Your task to perform on an android device: Go to calendar. Show me events next week Image 0: 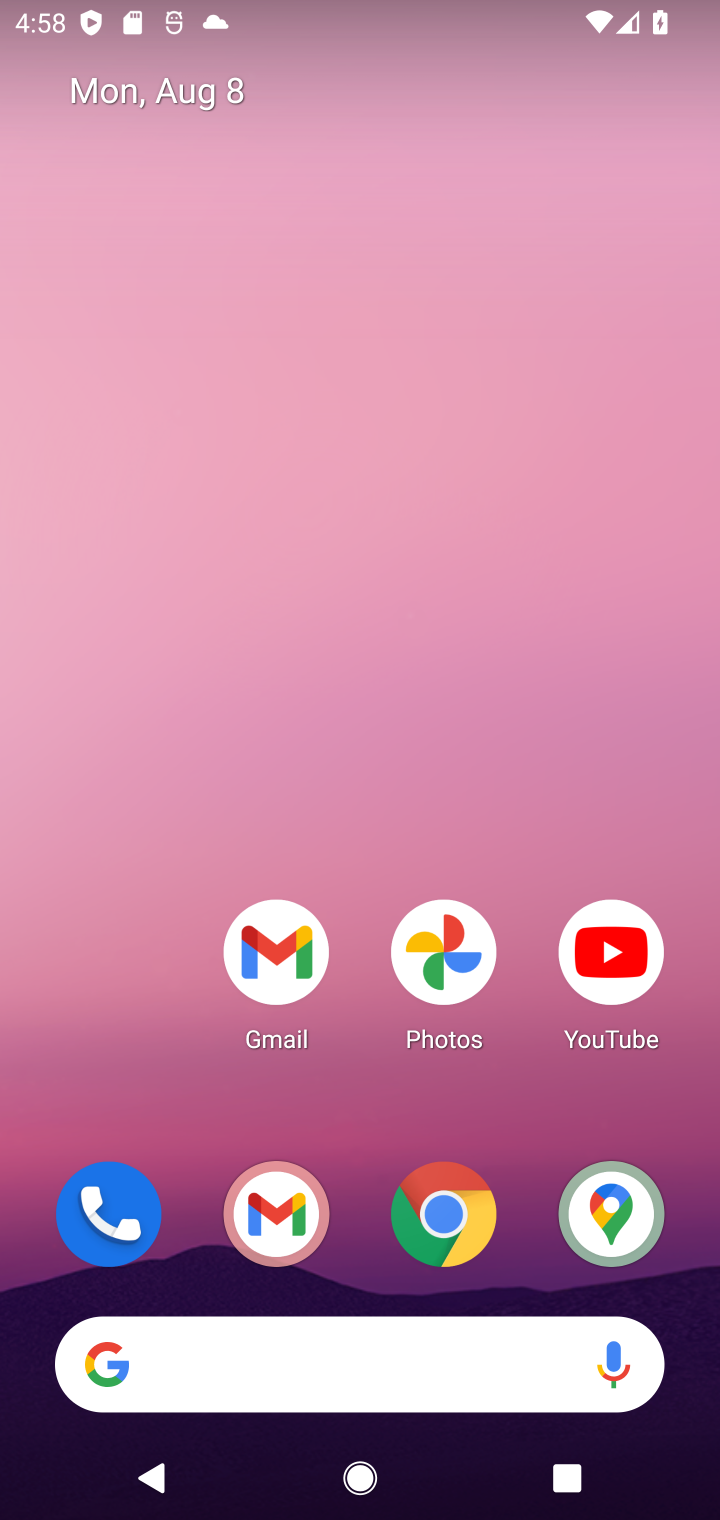
Step 0: drag from (317, 964) to (301, 114)
Your task to perform on an android device: Go to calendar. Show me events next week Image 1: 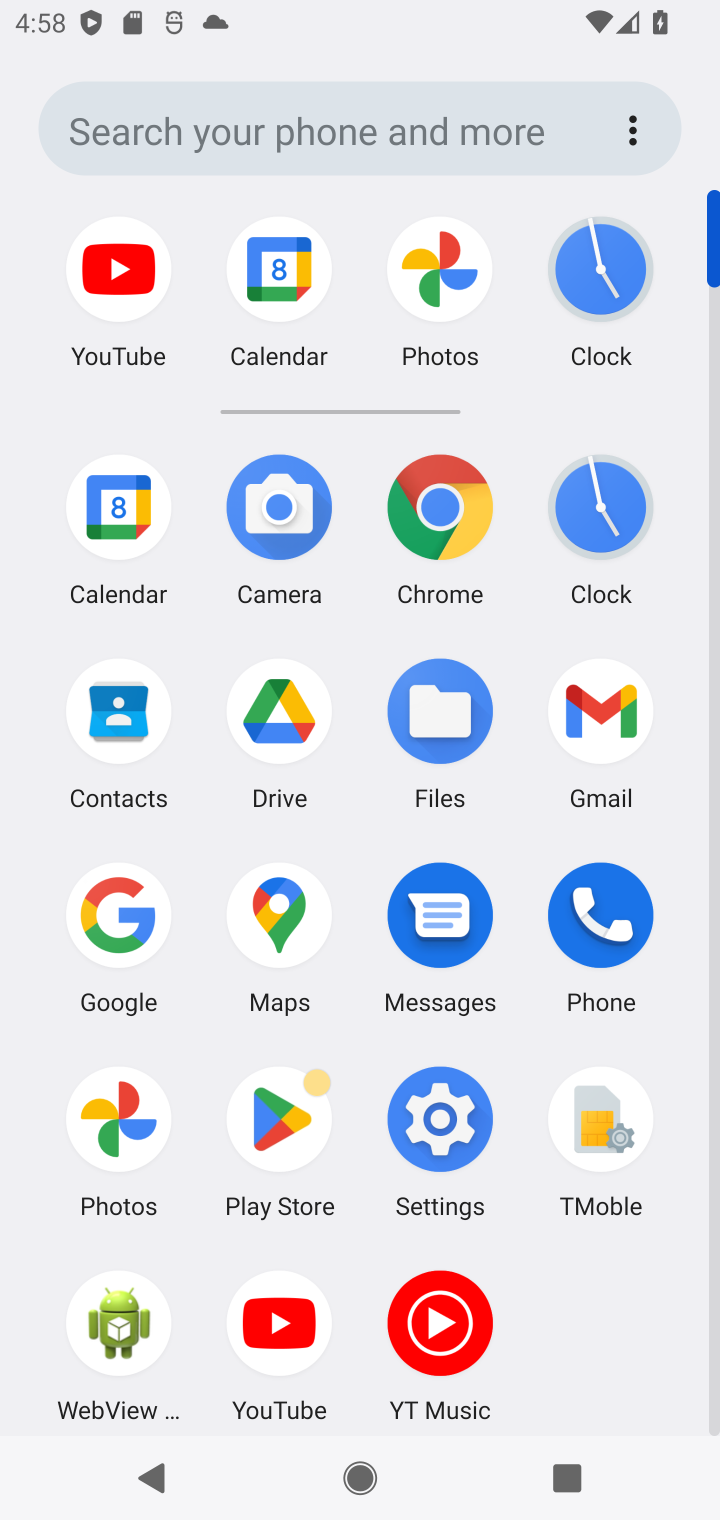
Step 1: click (119, 516)
Your task to perform on an android device: Go to calendar. Show me events next week Image 2: 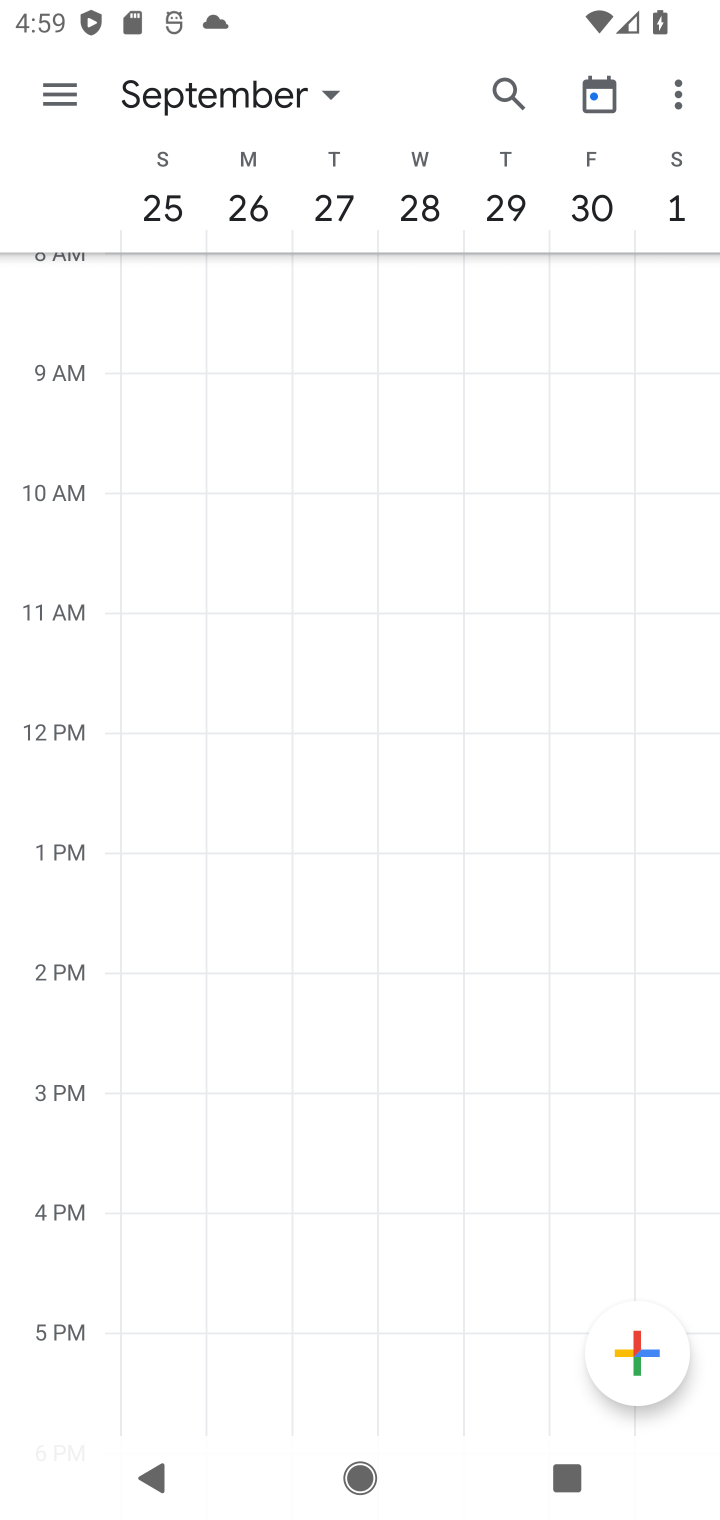
Step 2: click (336, 101)
Your task to perform on an android device: Go to calendar. Show me events next week Image 3: 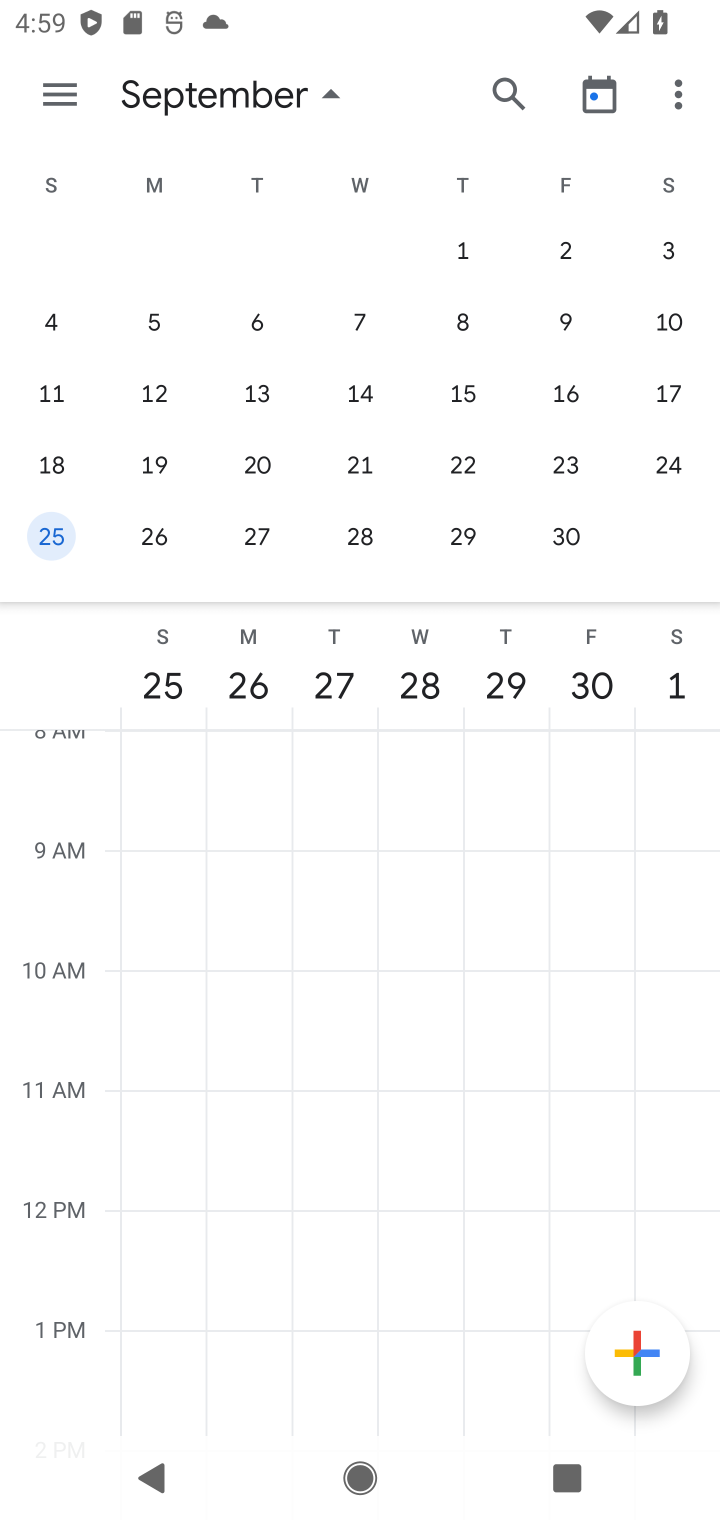
Step 3: drag from (54, 378) to (539, 394)
Your task to perform on an android device: Go to calendar. Show me events next week Image 4: 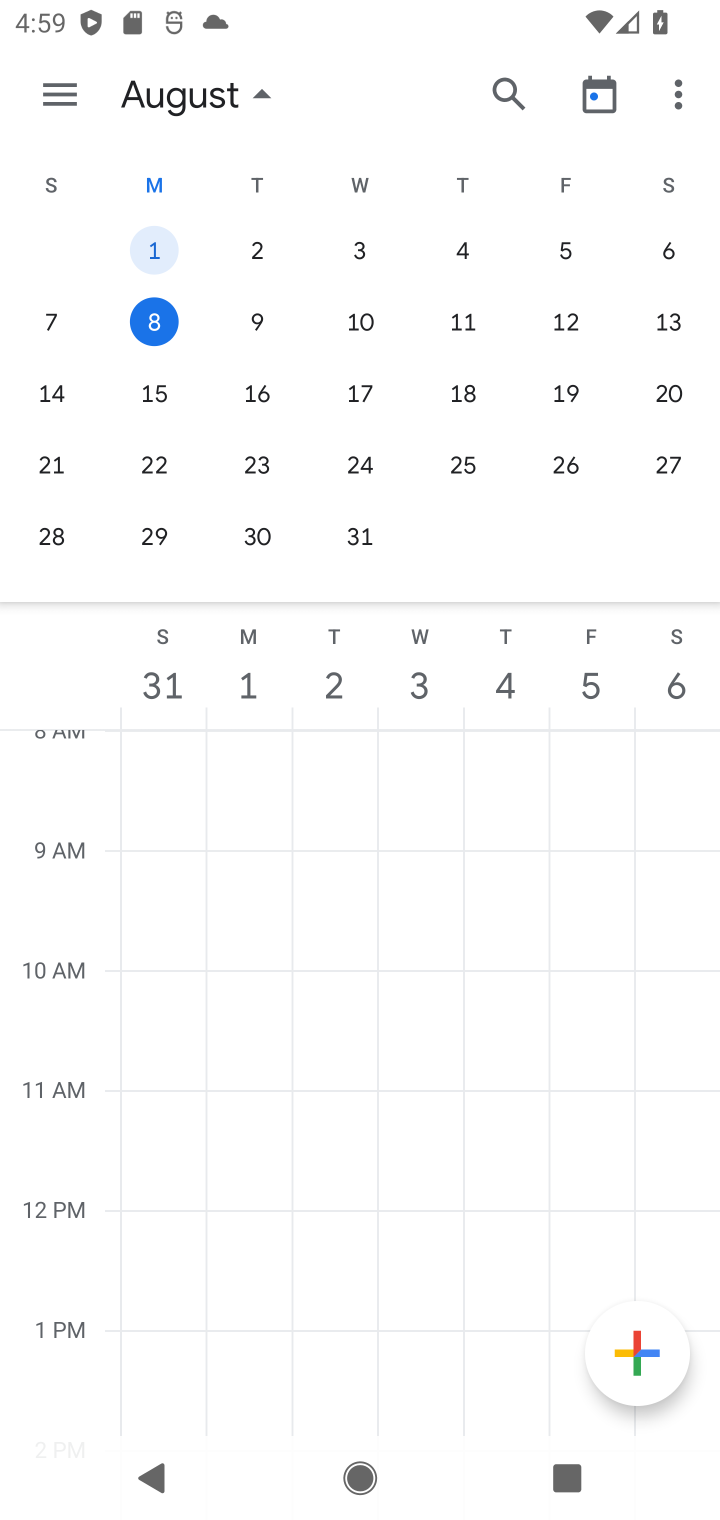
Step 4: click (153, 389)
Your task to perform on an android device: Go to calendar. Show me events next week Image 5: 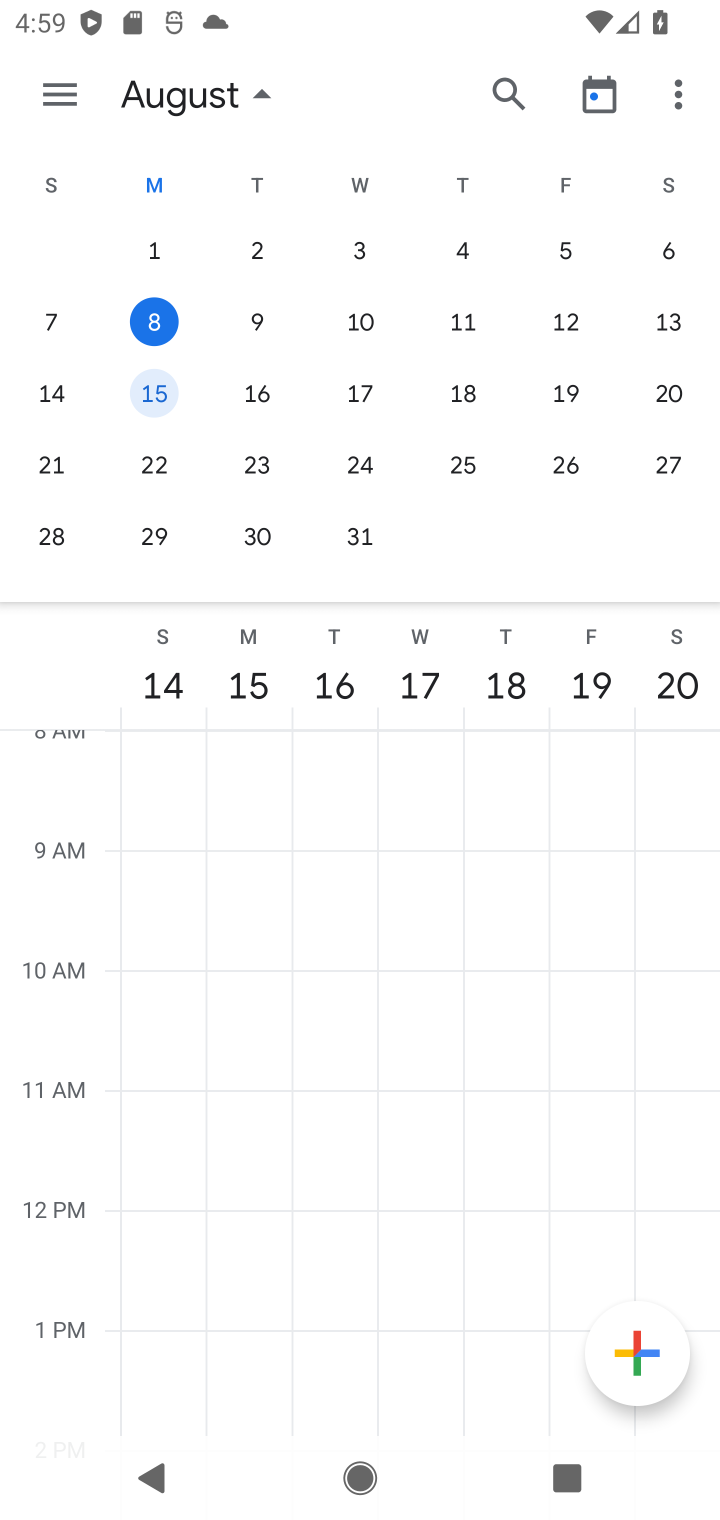
Step 5: click (53, 80)
Your task to perform on an android device: Go to calendar. Show me events next week Image 6: 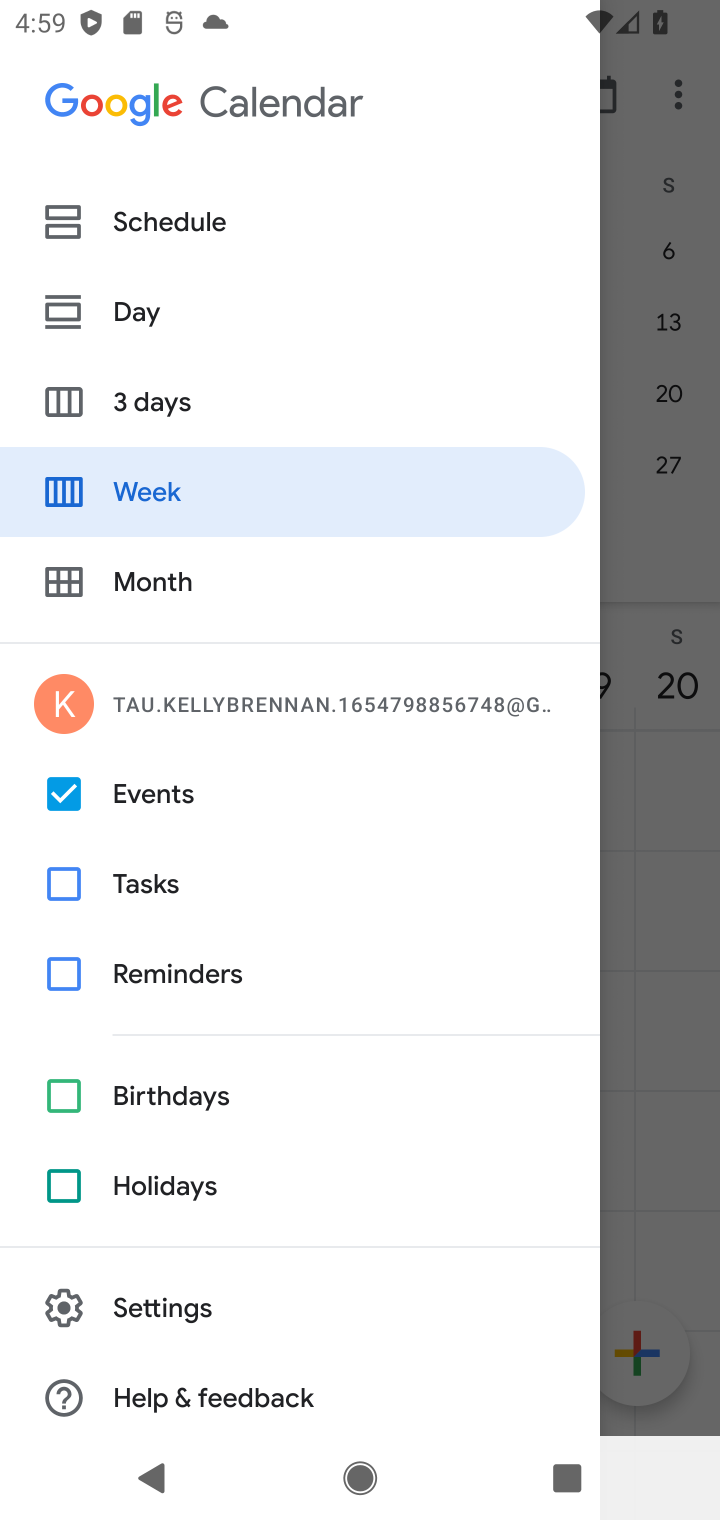
Step 6: click (178, 490)
Your task to perform on an android device: Go to calendar. Show me events next week Image 7: 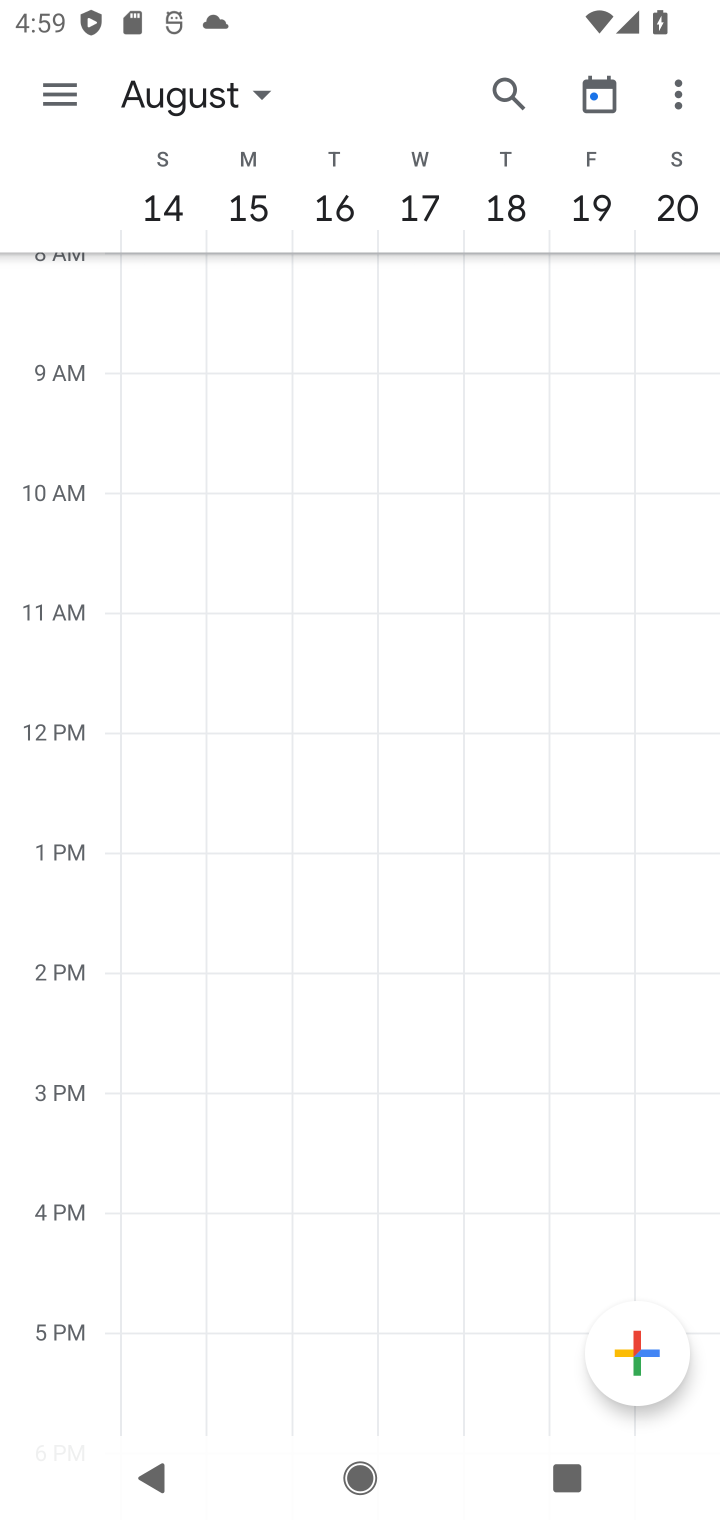
Step 7: task complete